Your task to perform on an android device: Open wifi settings Image 0: 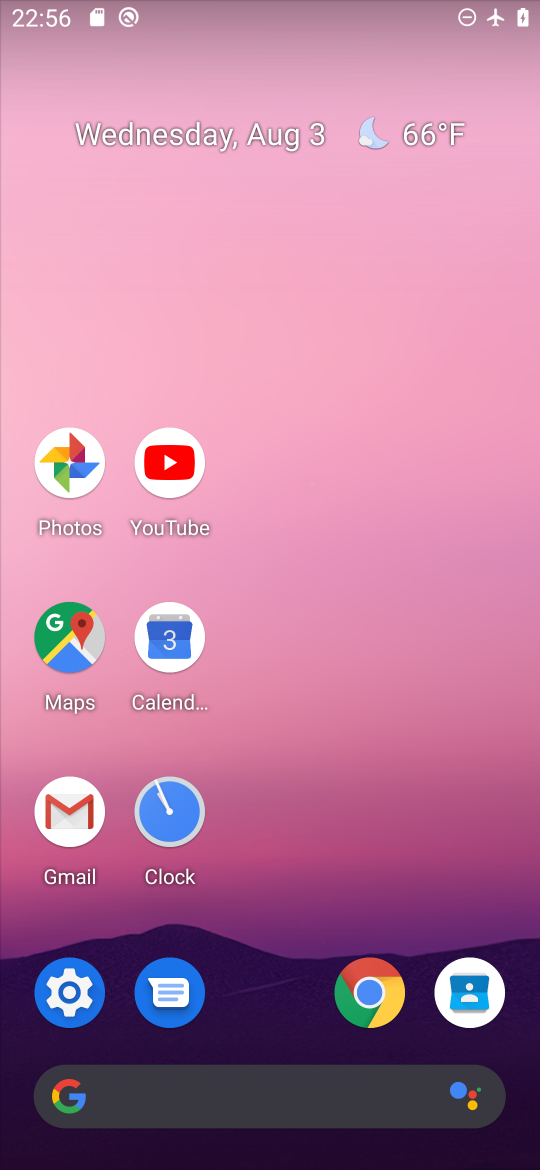
Step 0: click (60, 994)
Your task to perform on an android device: Open wifi settings Image 1: 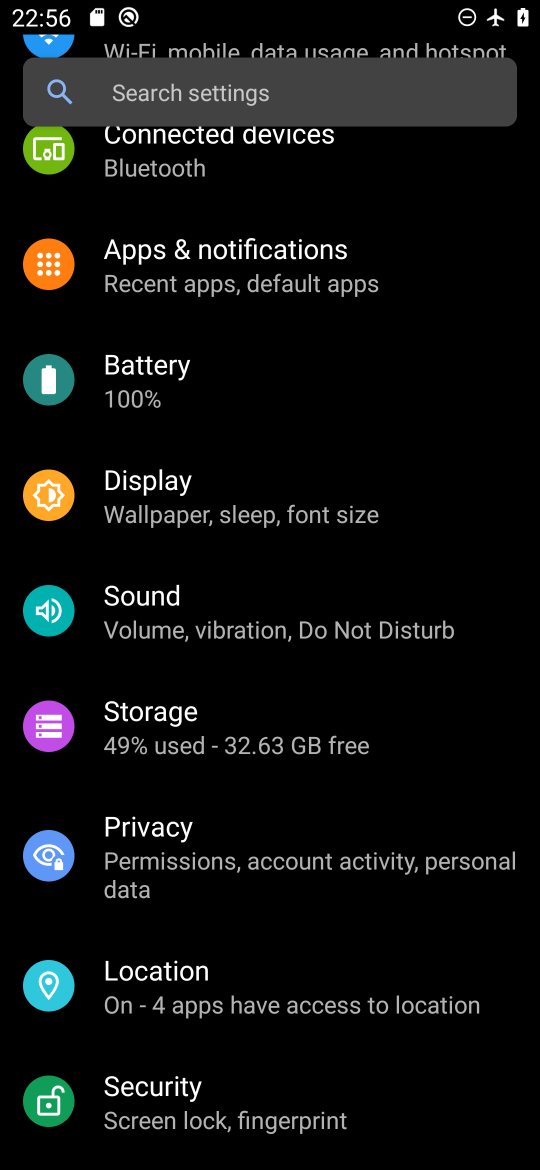
Step 1: drag from (303, 380) to (220, 846)
Your task to perform on an android device: Open wifi settings Image 2: 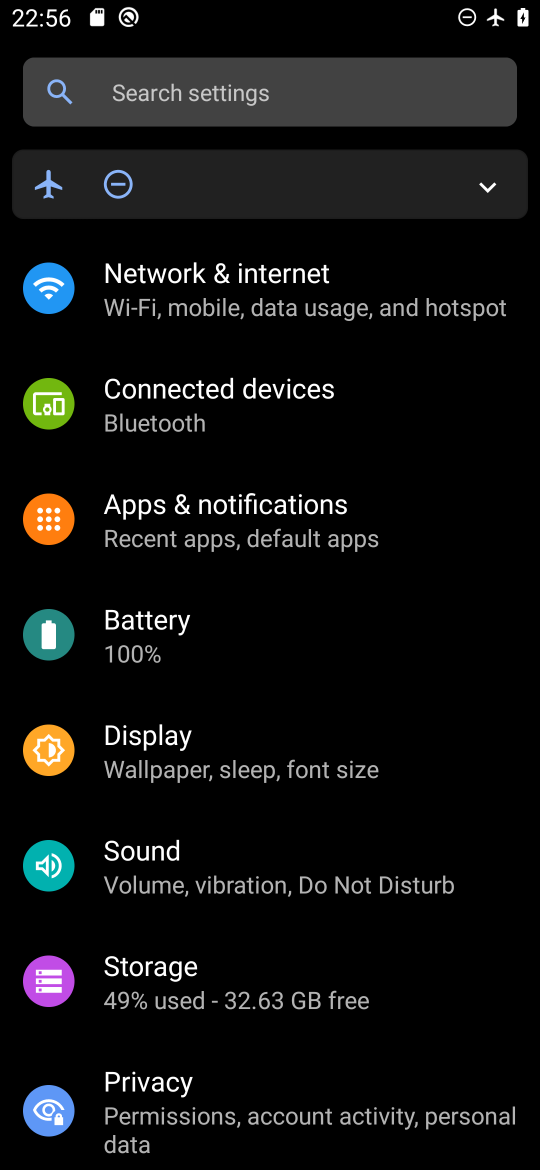
Step 2: click (215, 300)
Your task to perform on an android device: Open wifi settings Image 3: 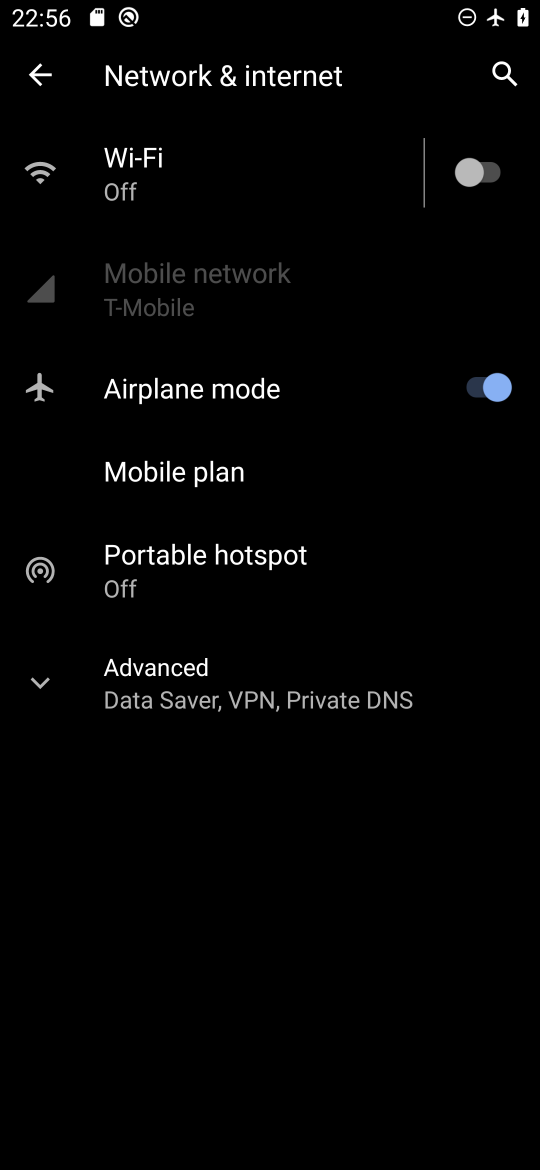
Step 3: click (148, 164)
Your task to perform on an android device: Open wifi settings Image 4: 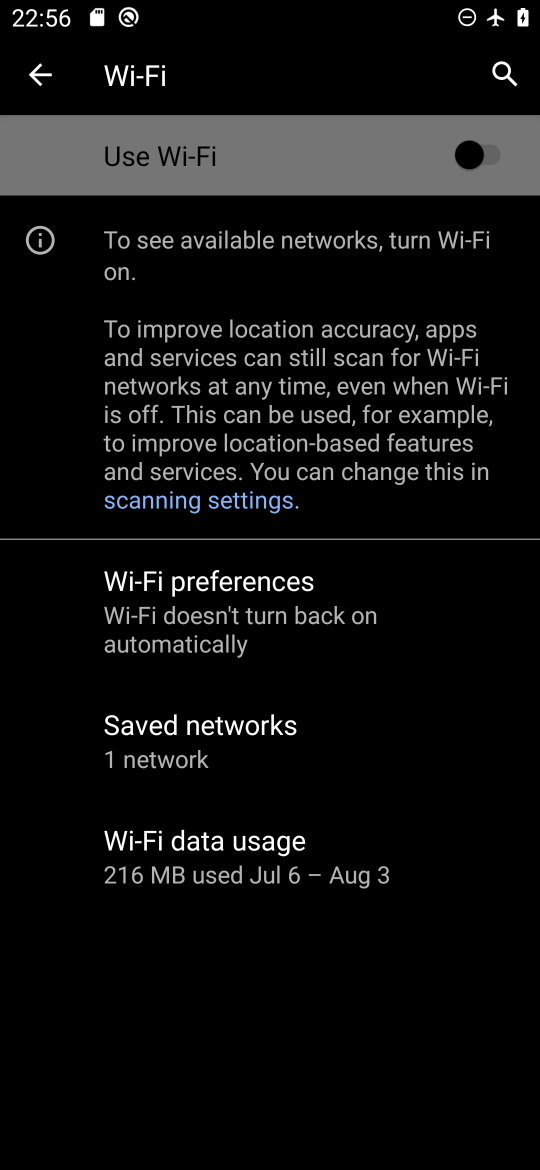
Step 4: task complete